Your task to perform on an android device: Clear the shopping cart on costco. Image 0: 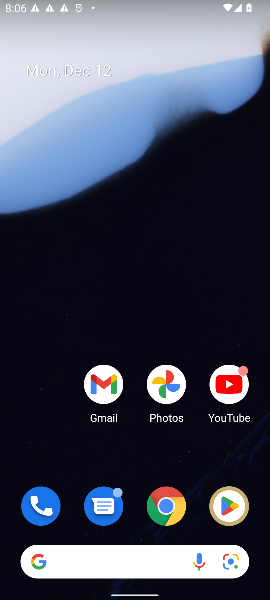
Step 0: click (145, 566)
Your task to perform on an android device: Clear the shopping cart on costco. Image 1: 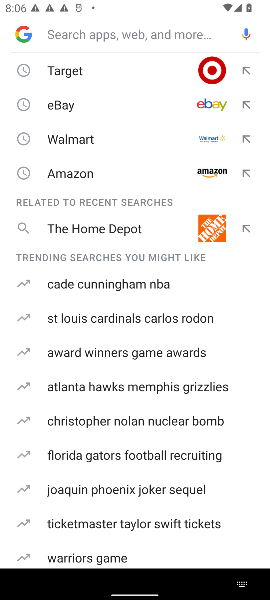
Step 1: type "costco"
Your task to perform on an android device: Clear the shopping cart on costco. Image 2: 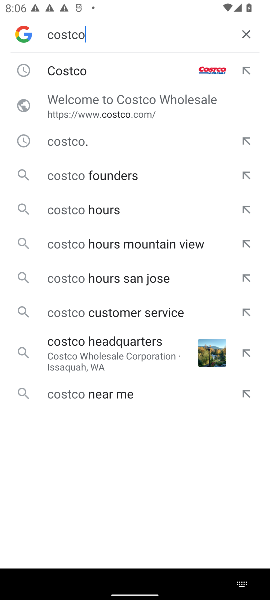
Step 2: click (114, 72)
Your task to perform on an android device: Clear the shopping cart on costco. Image 3: 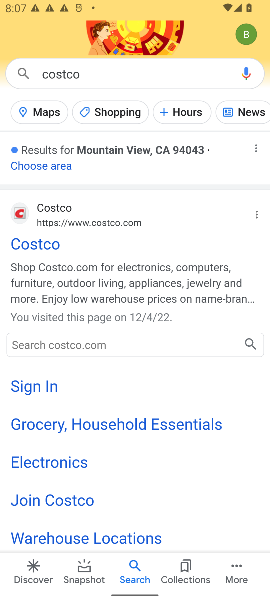
Step 3: click (36, 245)
Your task to perform on an android device: Clear the shopping cart on costco. Image 4: 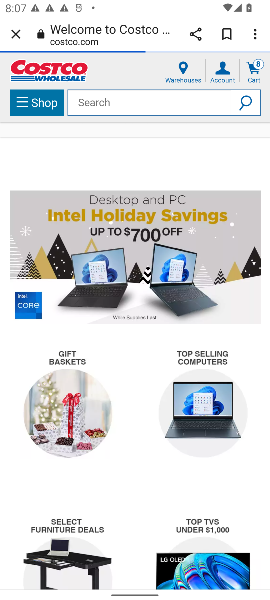
Step 4: click (150, 100)
Your task to perform on an android device: Clear the shopping cart on costco. Image 5: 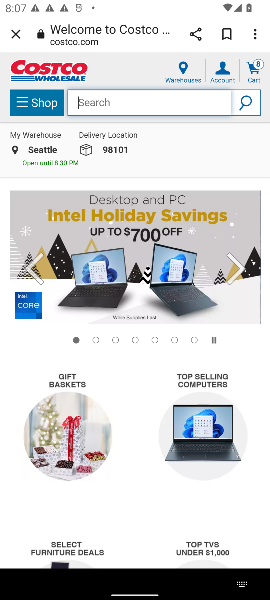
Step 5: click (258, 76)
Your task to perform on an android device: Clear the shopping cart on costco. Image 6: 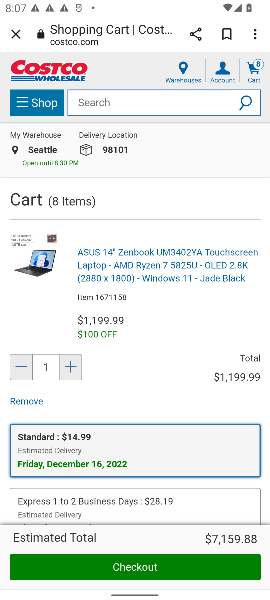
Step 6: click (27, 405)
Your task to perform on an android device: Clear the shopping cart on costco. Image 7: 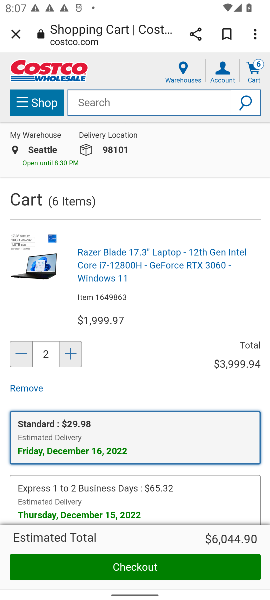
Step 7: task complete